Your task to perform on an android device: Open eBay Image 0: 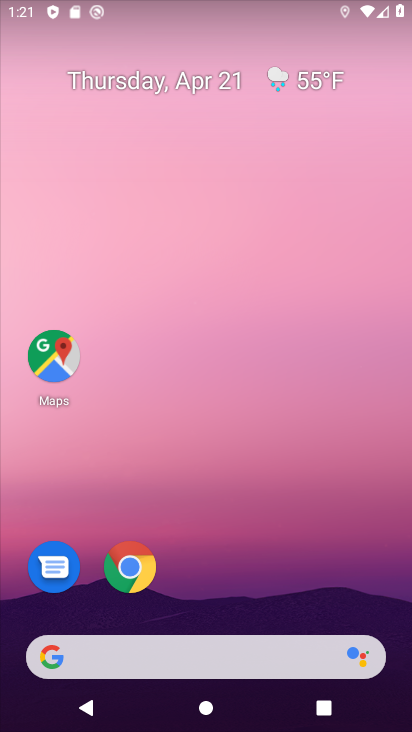
Step 0: click (128, 556)
Your task to perform on an android device: Open eBay Image 1: 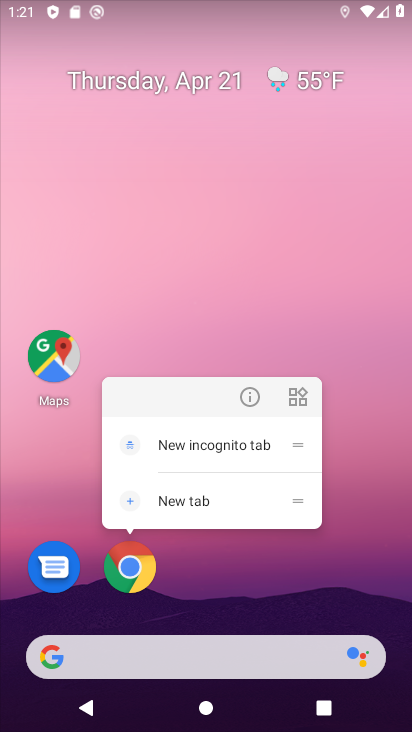
Step 1: click (126, 561)
Your task to perform on an android device: Open eBay Image 2: 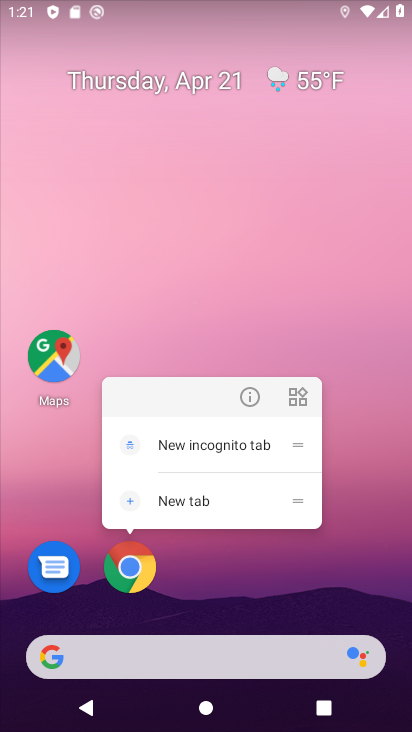
Step 2: click (132, 559)
Your task to perform on an android device: Open eBay Image 3: 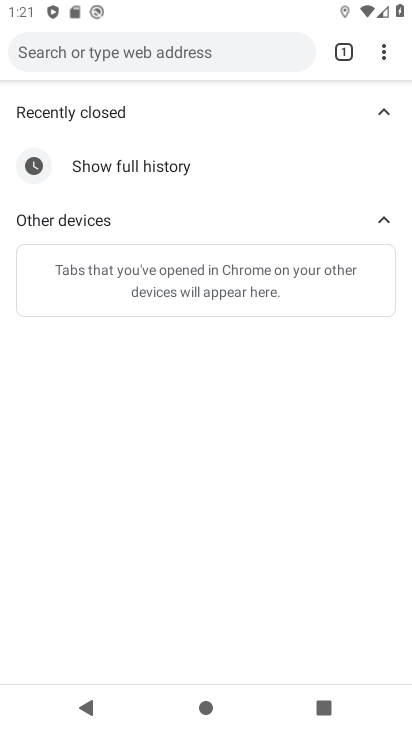
Step 3: click (344, 53)
Your task to perform on an android device: Open eBay Image 4: 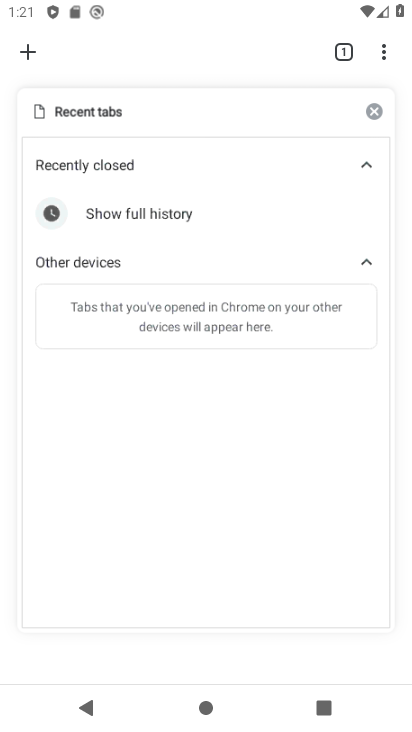
Step 4: click (376, 111)
Your task to perform on an android device: Open eBay Image 5: 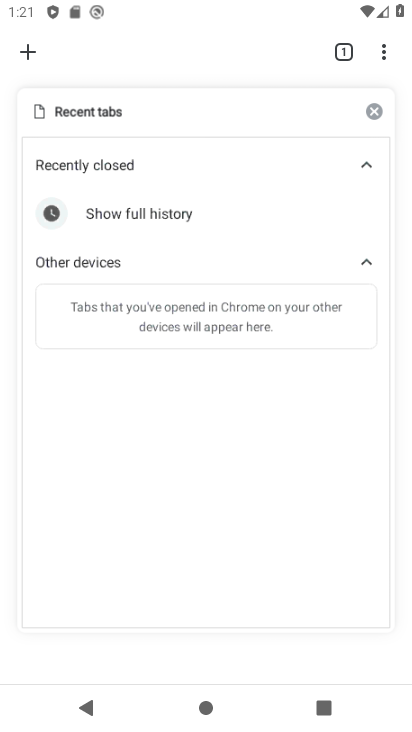
Step 5: click (29, 54)
Your task to perform on an android device: Open eBay Image 6: 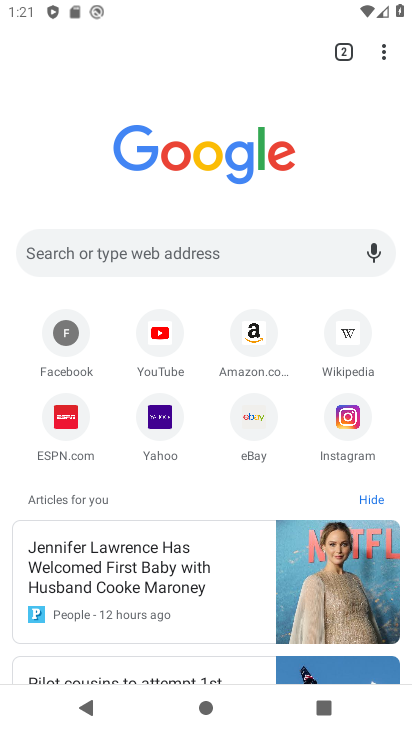
Step 6: click (249, 412)
Your task to perform on an android device: Open eBay Image 7: 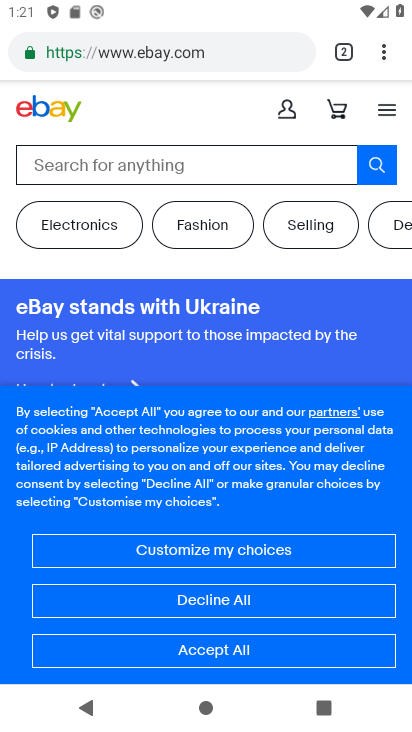
Step 7: click (225, 652)
Your task to perform on an android device: Open eBay Image 8: 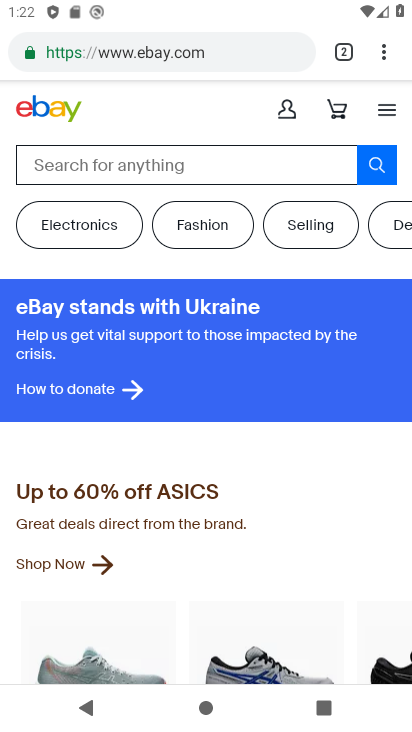
Step 8: task complete